Your task to perform on an android device: Open Google Chrome and open the bookmarks view Image 0: 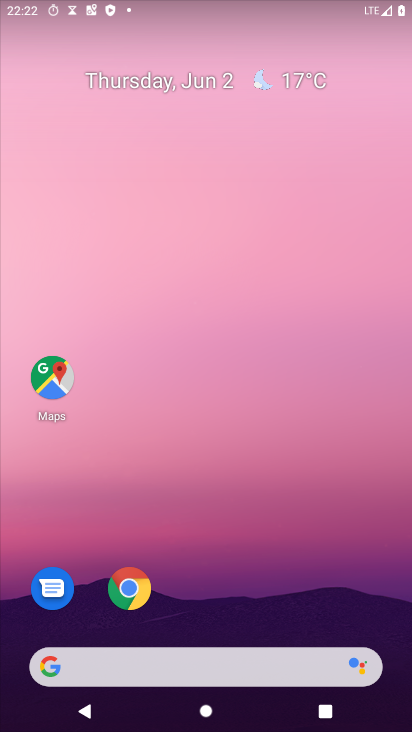
Step 0: click (137, 583)
Your task to perform on an android device: Open Google Chrome and open the bookmarks view Image 1: 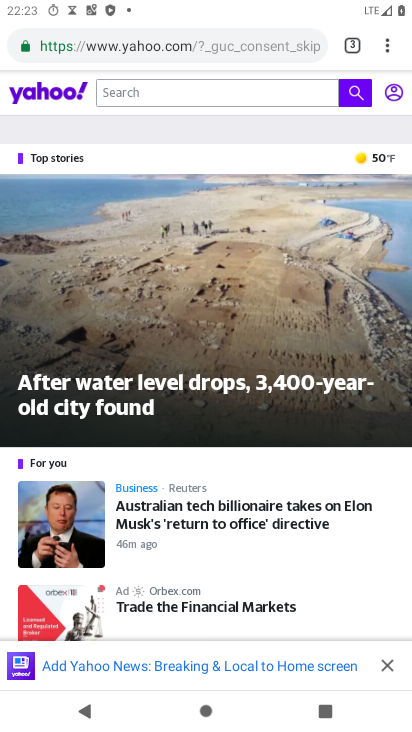
Step 1: task complete